Your task to perform on an android device: toggle sleep mode Image 0: 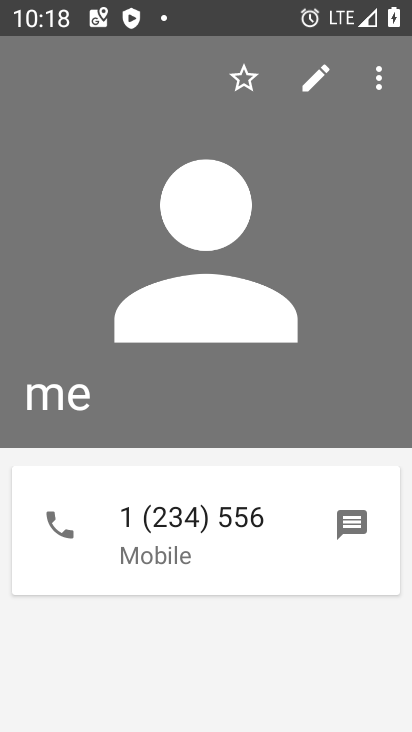
Step 0: press home button
Your task to perform on an android device: toggle sleep mode Image 1: 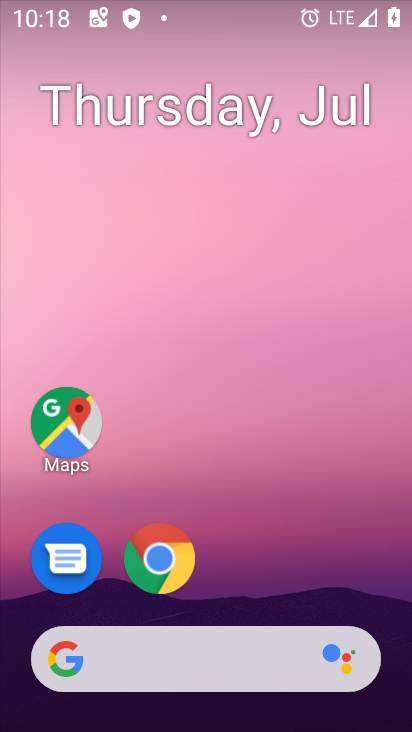
Step 1: drag from (360, 572) to (347, 74)
Your task to perform on an android device: toggle sleep mode Image 2: 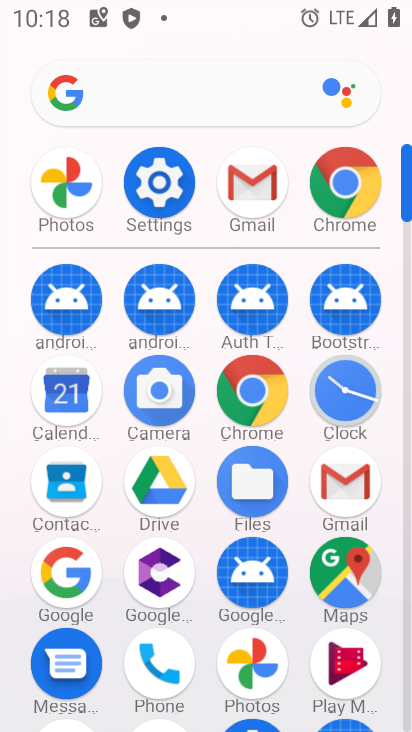
Step 2: click (160, 194)
Your task to perform on an android device: toggle sleep mode Image 3: 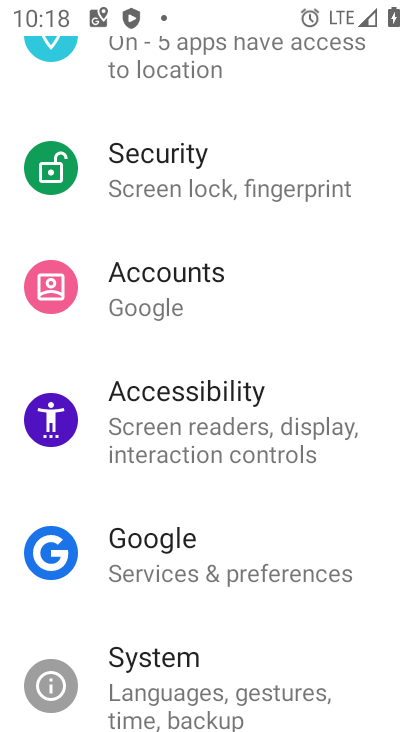
Step 3: drag from (336, 231) to (344, 310)
Your task to perform on an android device: toggle sleep mode Image 4: 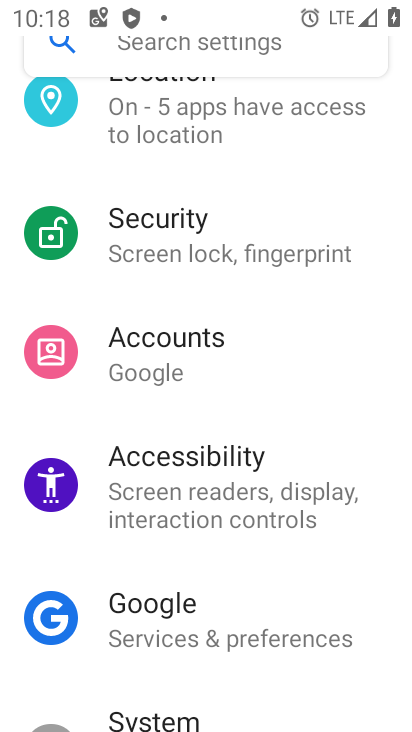
Step 4: drag from (362, 207) to (366, 320)
Your task to perform on an android device: toggle sleep mode Image 5: 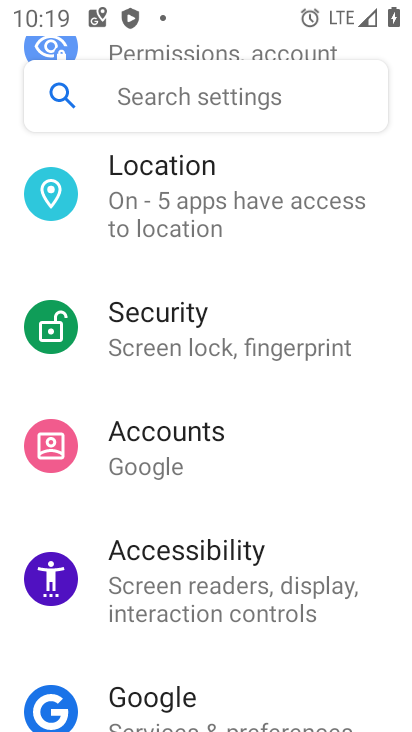
Step 5: drag from (366, 228) to (366, 335)
Your task to perform on an android device: toggle sleep mode Image 6: 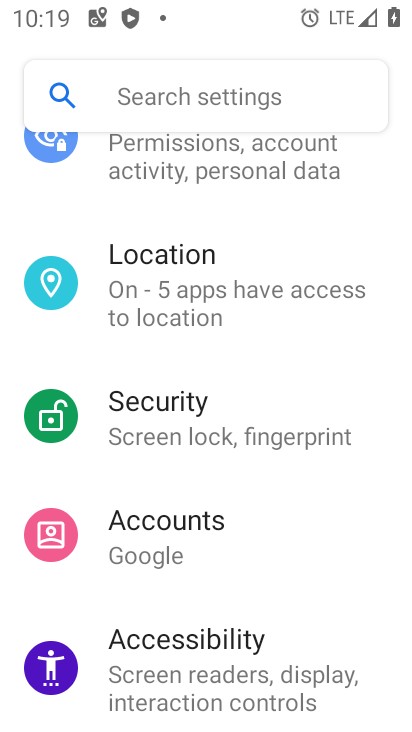
Step 6: drag from (366, 222) to (372, 316)
Your task to perform on an android device: toggle sleep mode Image 7: 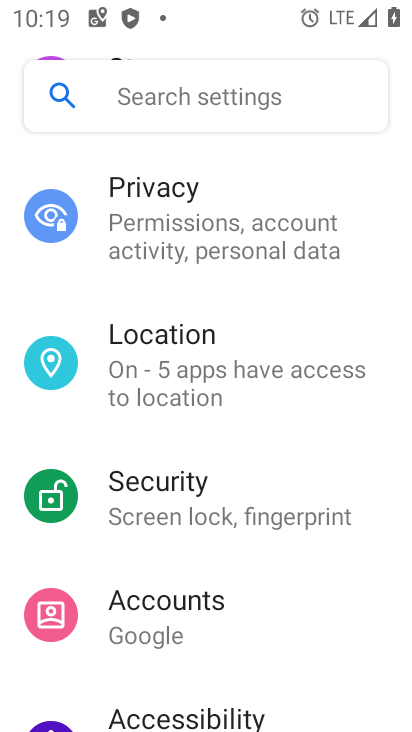
Step 7: drag from (365, 213) to (377, 332)
Your task to perform on an android device: toggle sleep mode Image 8: 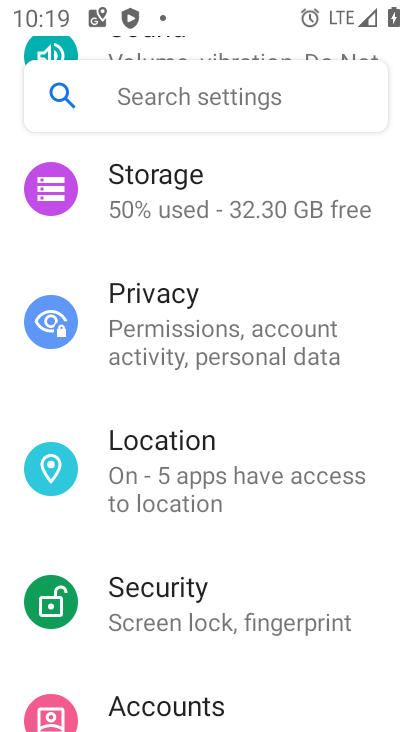
Step 8: drag from (374, 254) to (375, 362)
Your task to perform on an android device: toggle sleep mode Image 9: 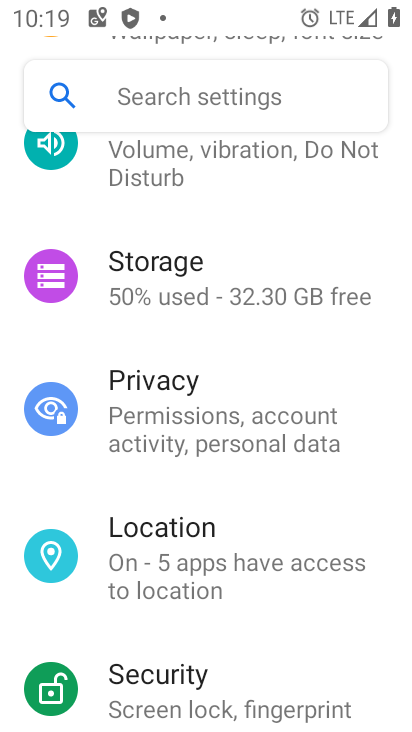
Step 9: drag from (377, 248) to (391, 378)
Your task to perform on an android device: toggle sleep mode Image 10: 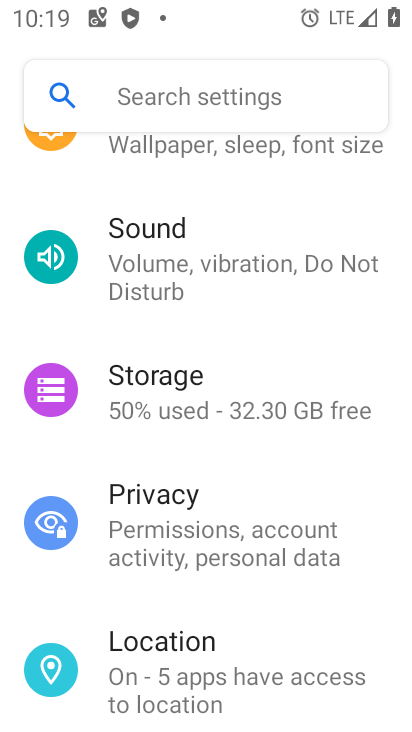
Step 10: drag from (374, 217) to (373, 341)
Your task to perform on an android device: toggle sleep mode Image 11: 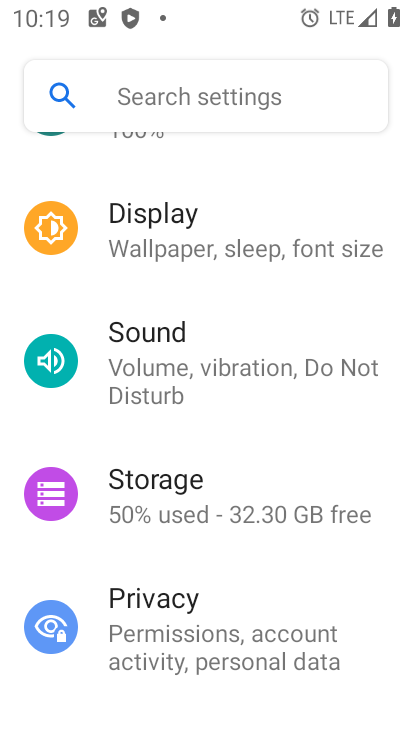
Step 11: drag from (357, 182) to (360, 323)
Your task to perform on an android device: toggle sleep mode Image 12: 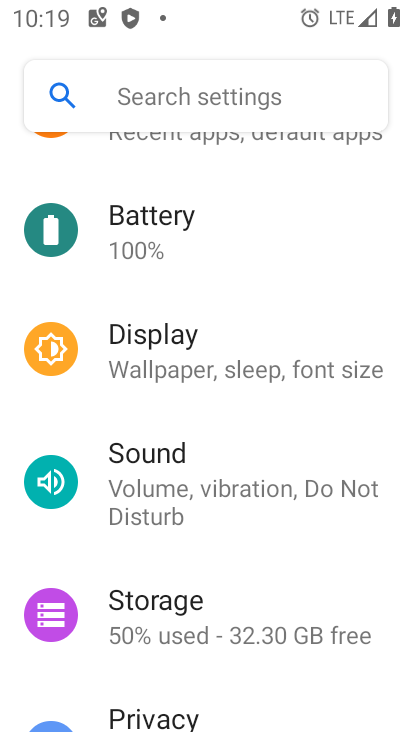
Step 12: drag from (349, 222) to (354, 363)
Your task to perform on an android device: toggle sleep mode Image 13: 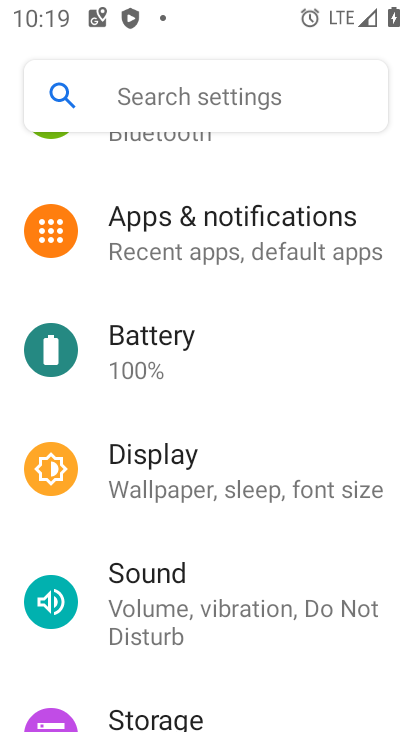
Step 13: click (338, 479)
Your task to perform on an android device: toggle sleep mode Image 14: 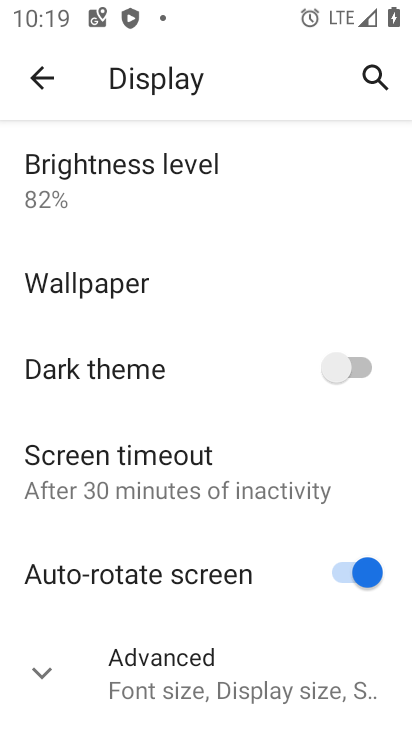
Step 14: click (271, 638)
Your task to perform on an android device: toggle sleep mode Image 15: 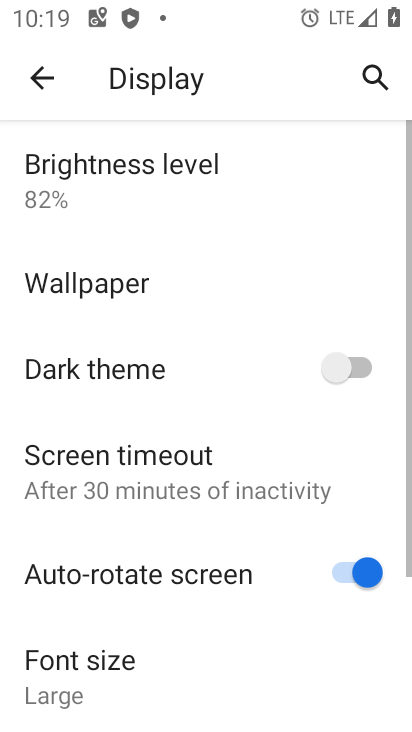
Step 15: task complete